Your task to perform on an android device: visit the assistant section in the google photos Image 0: 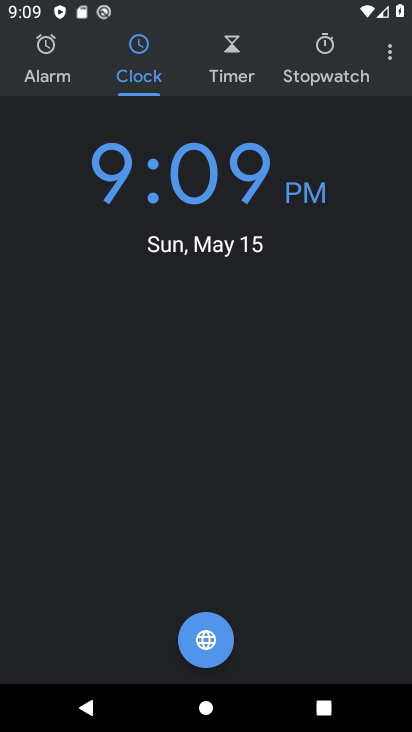
Step 0: press home button
Your task to perform on an android device: visit the assistant section in the google photos Image 1: 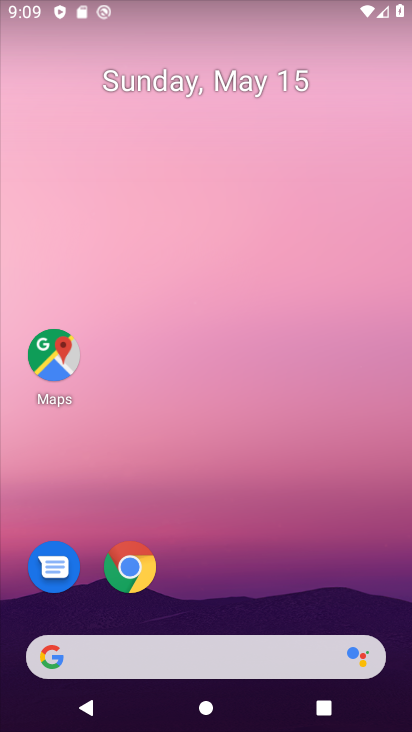
Step 1: drag from (345, 583) to (311, 26)
Your task to perform on an android device: visit the assistant section in the google photos Image 2: 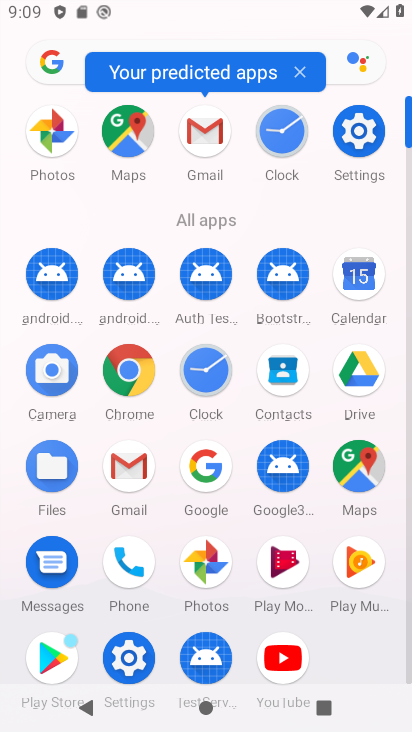
Step 2: click (219, 568)
Your task to perform on an android device: visit the assistant section in the google photos Image 3: 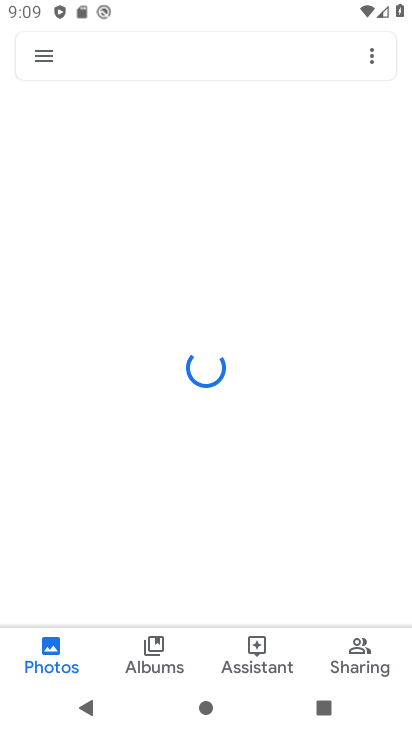
Step 3: click (263, 654)
Your task to perform on an android device: visit the assistant section in the google photos Image 4: 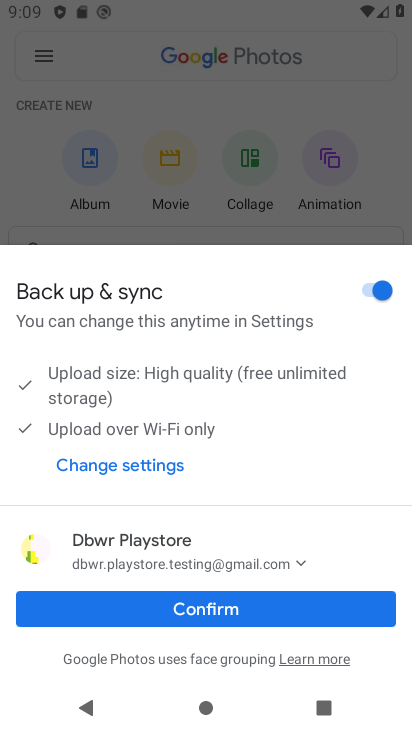
Step 4: click (252, 605)
Your task to perform on an android device: visit the assistant section in the google photos Image 5: 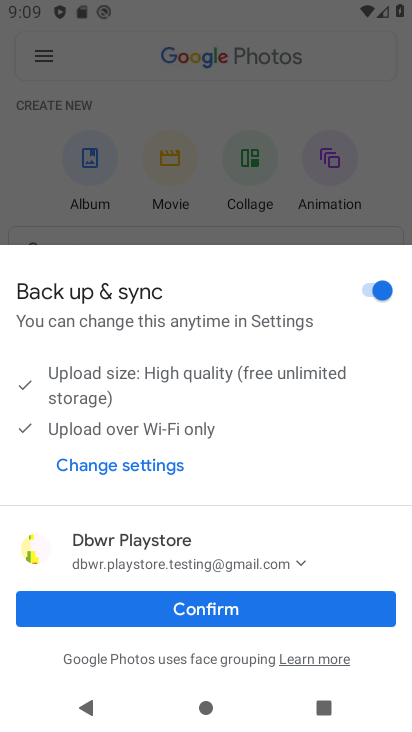
Step 5: click (251, 605)
Your task to perform on an android device: visit the assistant section in the google photos Image 6: 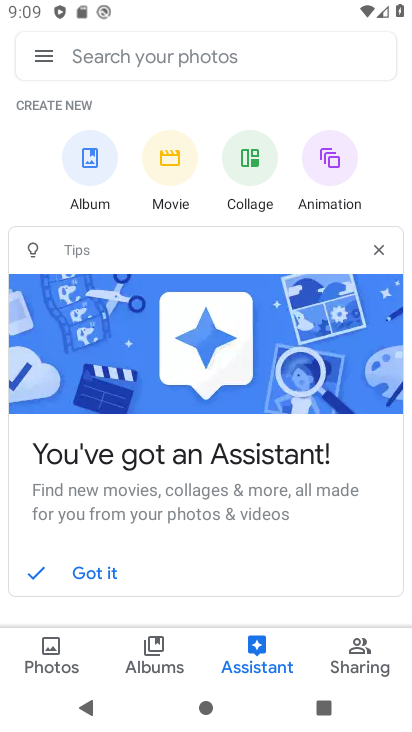
Step 6: task complete